Your task to perform on an android device: Go to Google Image 0: 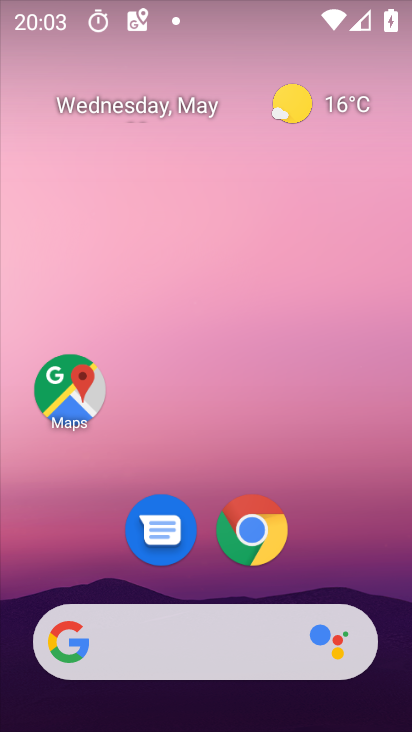
Step 0: drag from (218, 580) to (202, 190)
Your task to perform on an android device: Go to Google Image 1: 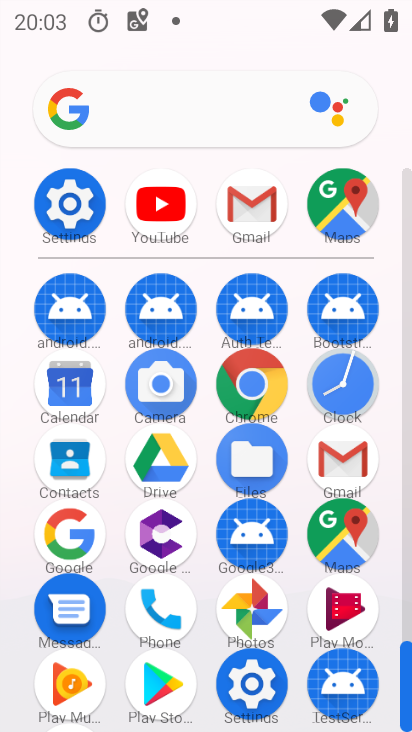
Step 1: click (77, 528)
Your task to perform on an android device: Go to Google Image 2: 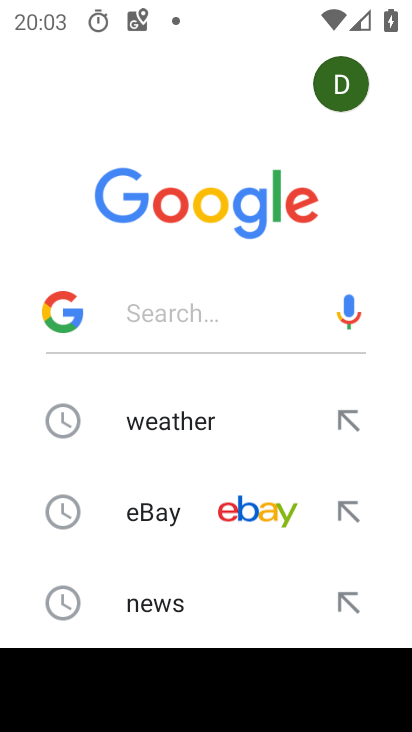
Step 2: task complete